Your task to perform on an android device: turn on bluetooth scan Image 0: 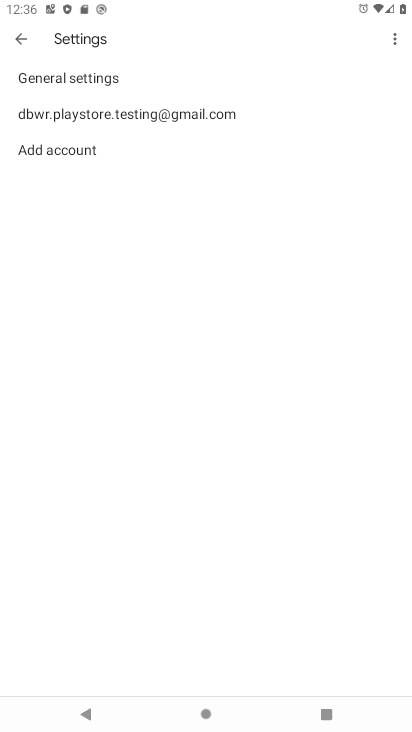
Step 0: press home button
Your task to perform on an android device: turn on bluetooth scan Image 1: 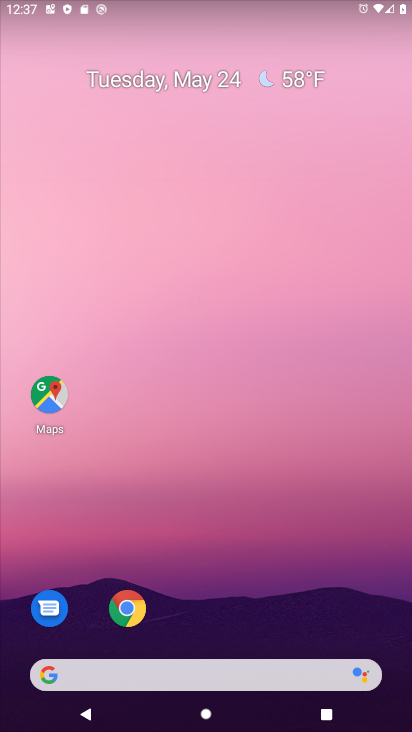
Step 1: drag from (269, 699) to (287, 77)
Your task to perform on an android device: turn on bluetooth scan Image 2: 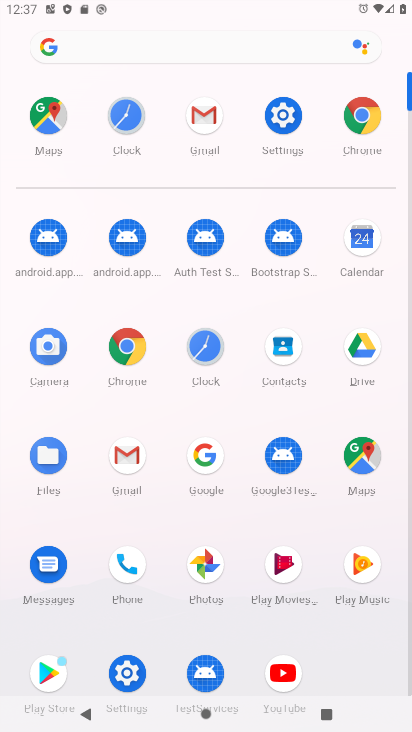
Step 2: click (278, 119)
Your task to perform on an android device: turn on bluetooth scan Image 3: 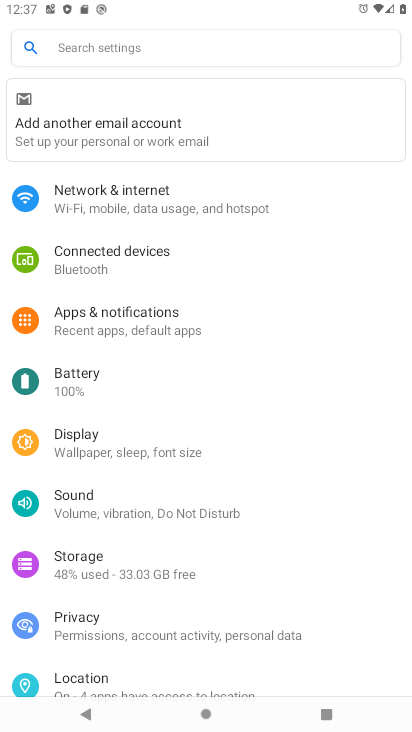
Step 3: click (189, 43)
Your task to perform on an android device: turn on bluetooth scan Image 4: 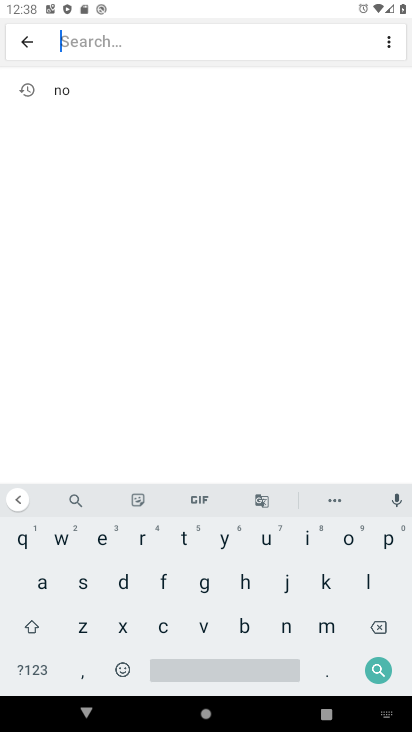
Step 4: click (369, 578)
Your task to perform on an android device: turn on bluetooth scan Image 5: 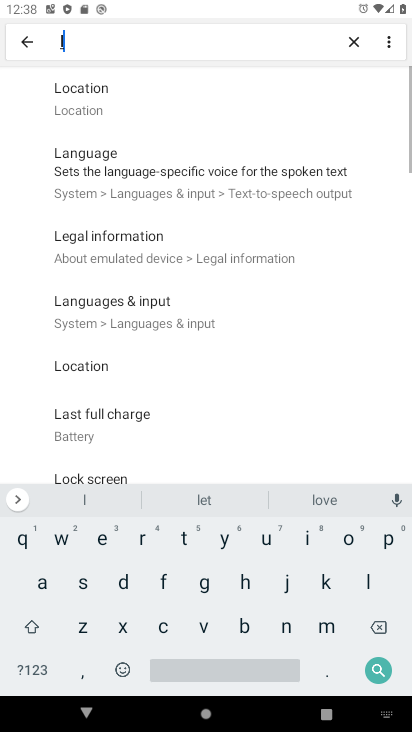
Step 5: click (351, 537)
Your task to perform on an android device: turn on bluetooth scan Image 6: 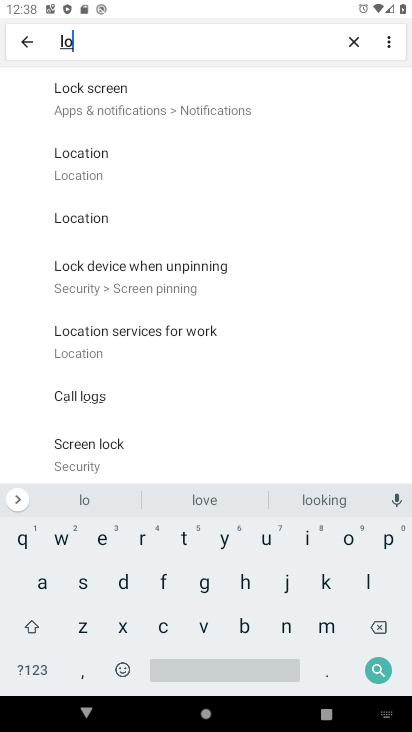
Step 6: click (126, 172)
Your task to perform on an android device: turn on bluetooth scan Image 7: 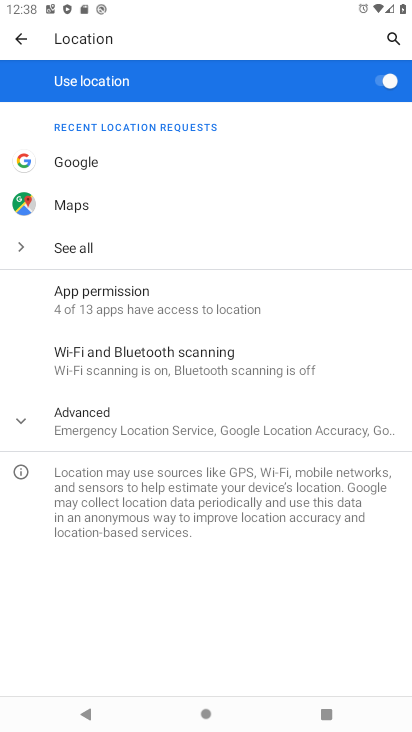
Step 7: click (32, 429)
Your task to perform on an android device: turn on bluetooth scan Image 8: 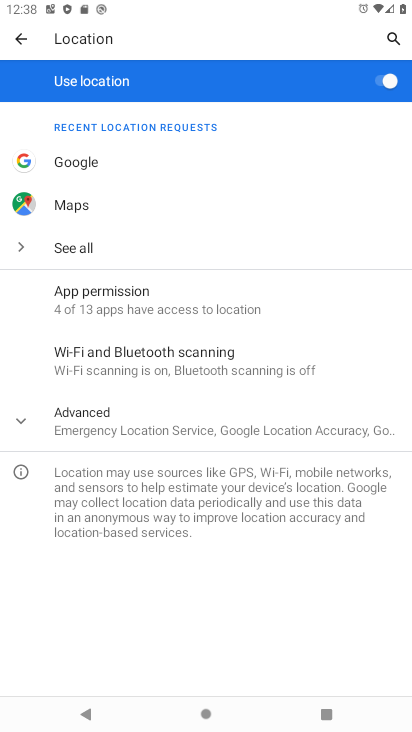
Step 8: click (20, 430)
Your task to perform on an android device: turn on bluetooth scan Image 9: 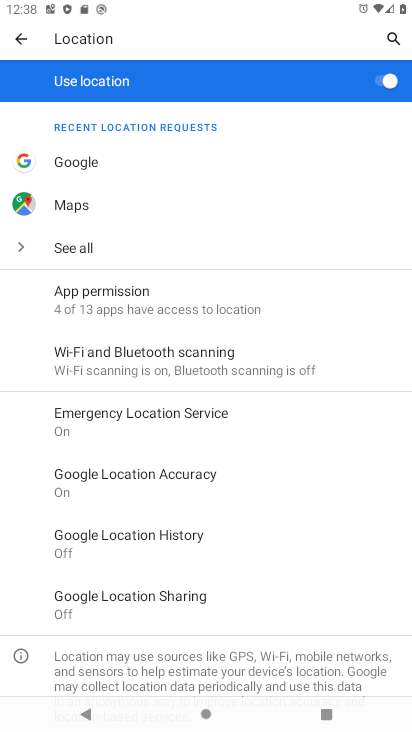
Step 9: click (184, 361)
Your task to perform on an android device: turn on bluetooth scan Image 10: 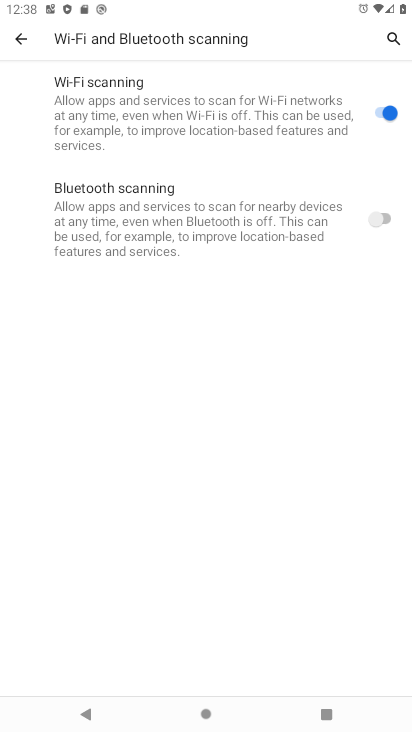
Step 10: click (354, 214)
Your task to perform on an android device: turn on bluetooth scan Image 11: 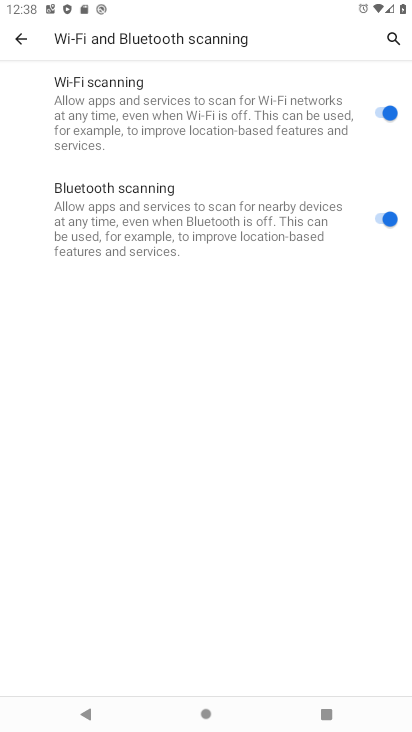
Step 11: task complete